Your task to perform on an android device: Open the map Image 0: 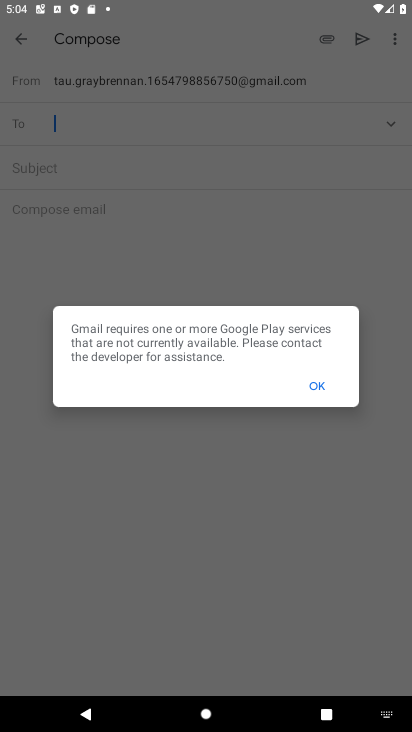
Step 0: press home button
Your task to perform on an android device: Open the map Image 1: 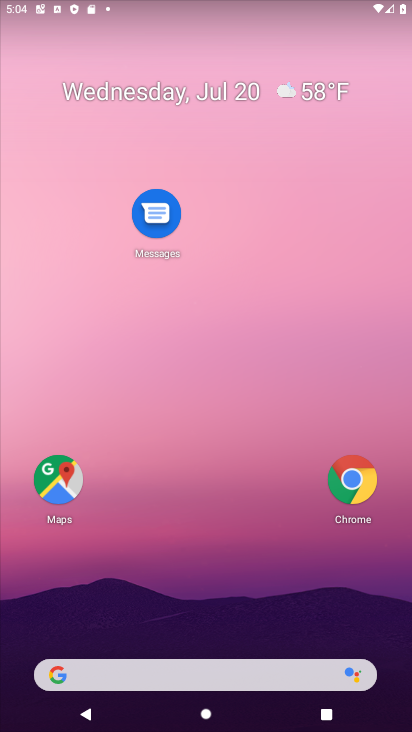
Step 1: click (57, 479)
Your task to perform on an android device: Open the map Image 2: 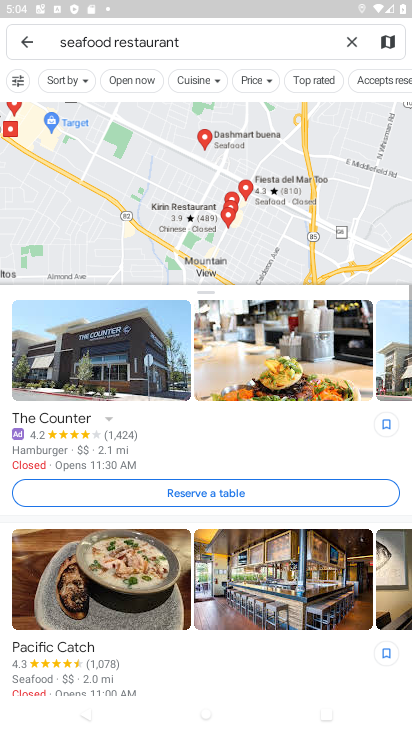
Step 2: task complete